Your task to perform on an android device: turn pop-ups off in chrome Image 0: 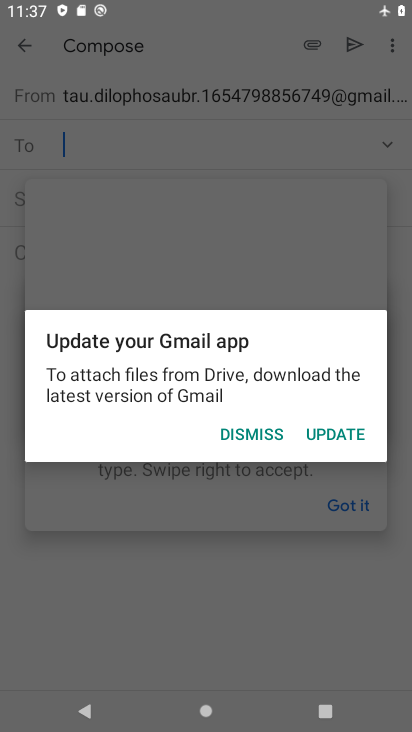
Step 0: press home button
Your task to perform on an android device: turn pop-ups off in chrome Image 1: 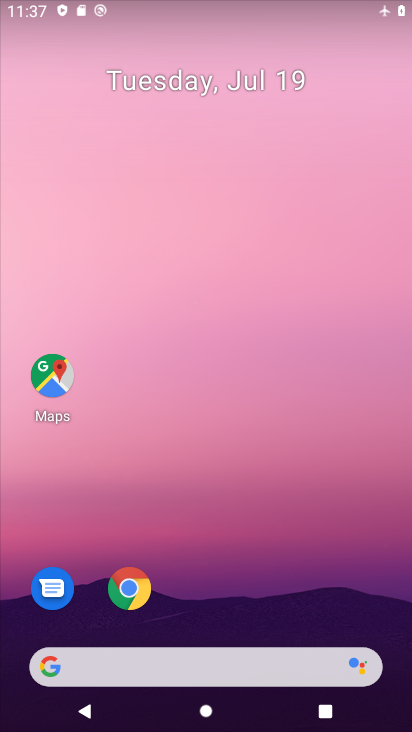
Step 1: drag from (382, 630) to (247, 25)
Your task to perform on an android device: turn pop-ups off in chrome Image 2: 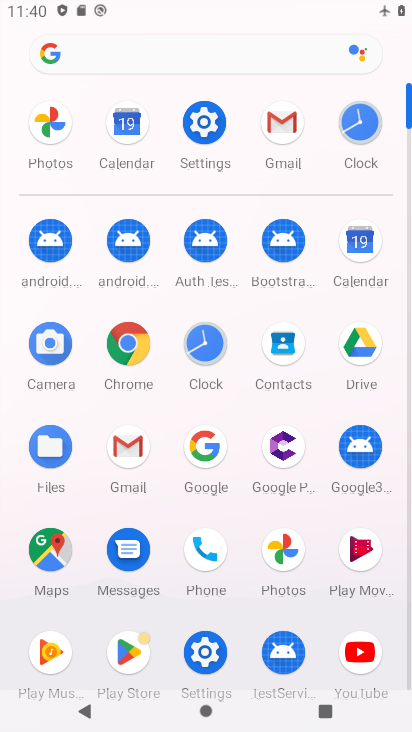
Step 2: click (126, 331)
Your task to perform on an android device: turn pop-ups off in chrome Image 3: 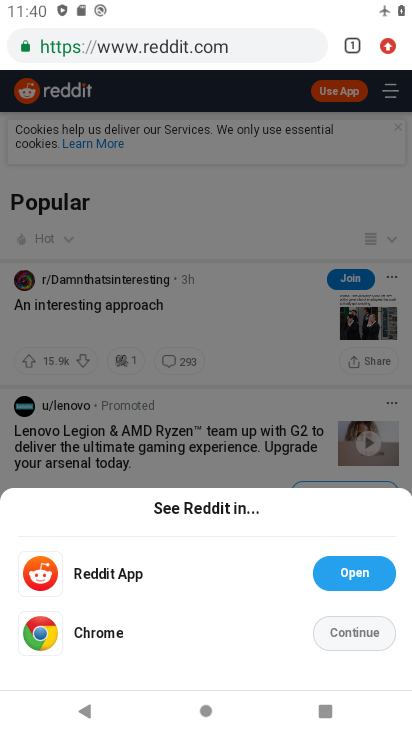
Step 3: press back button
Your task to perform on an android device: turn pop-ups off in chrome Image 4: 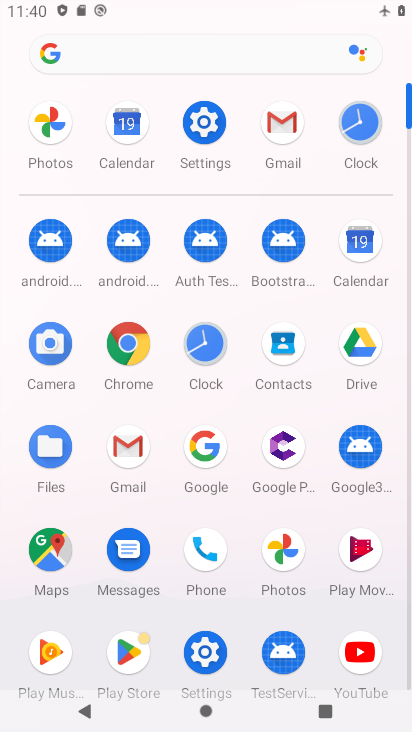
Step 4: click (128, 351)
Your task to perform on an android device: turn pop-ups off in chrome Image 5: 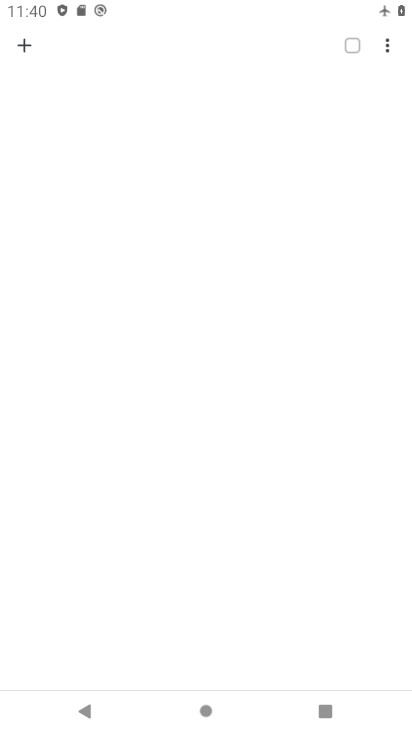
Step 5: click (389, 46)
Your task to perform on an android device: turn pop-ups off in chrome Image 6: 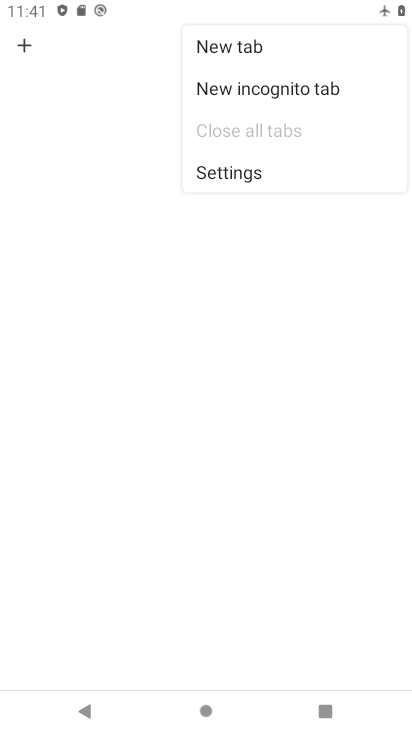
Step 6: click (236, 178)
Your task to perform on an android device: turn pop-ups off in chrome Image 7: 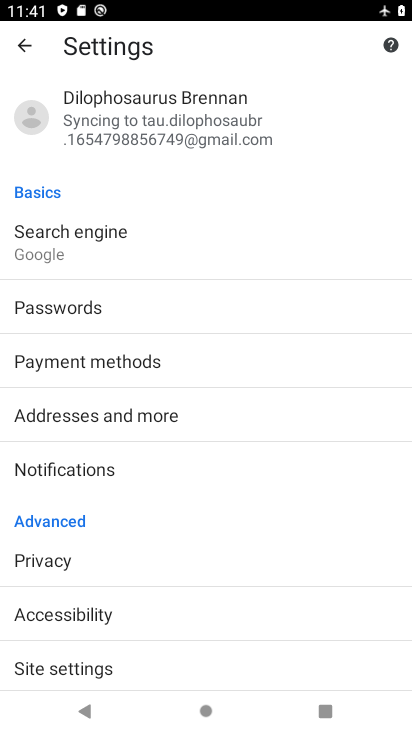
Step 7: drag from (167, 647) to (184, 287)
Your task to perform on an android device: turn pop-ups off in chrome Image 8: 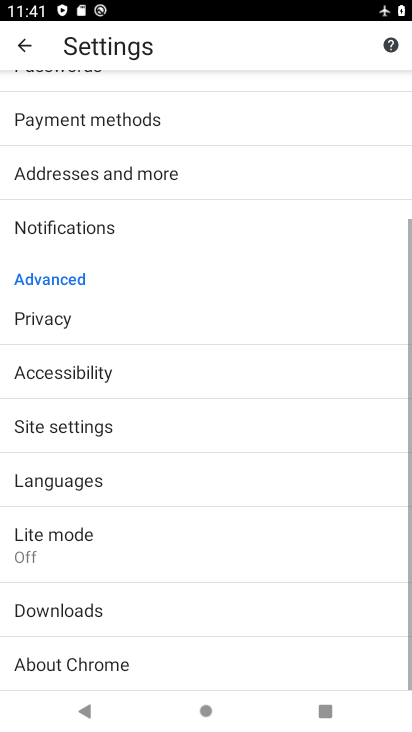
Step 8: click (85, 424)
Your task to perform on an android device: turn pop-ups off in chrome Image 9: 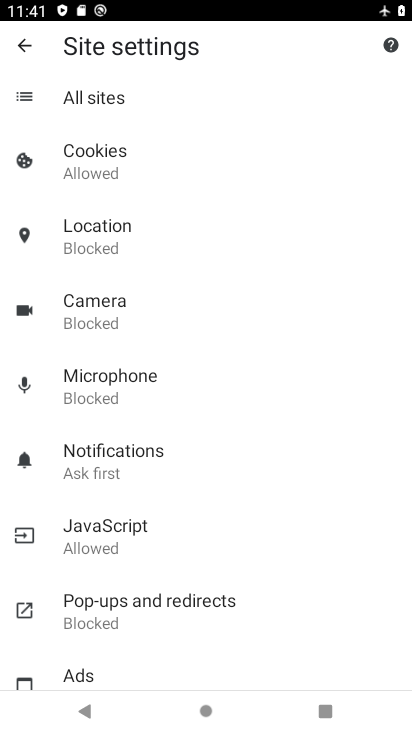
Step 9: click (173, 613)
Your task to perform on an android device: turn pop-ups off in chrome Image 10: 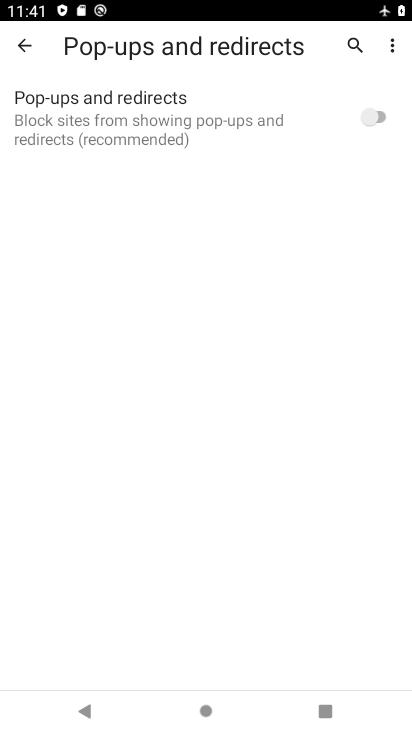
Step 10: click (349, 114)
Your task to perform on an android device: turn pop-ups off in chrome Image 11: 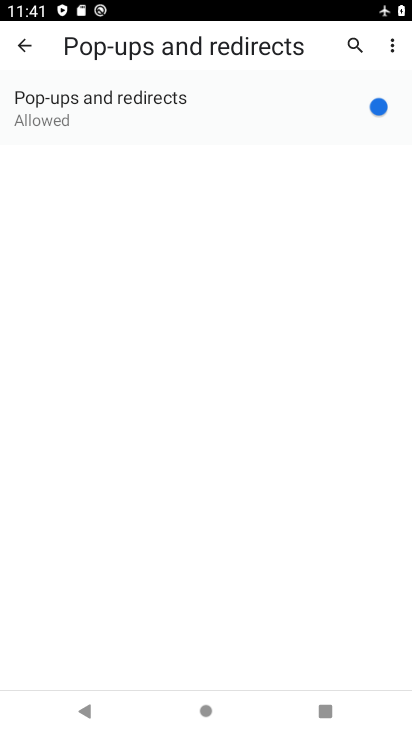
Step 11: click (349, 114)
Your task to perform on an android device: turn pop-ups off in chrome Image 12: 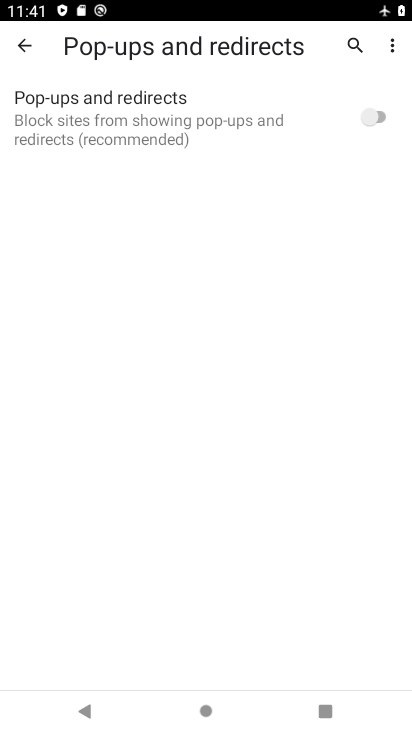
Step 12: task complete